Your task to perform on an android device: What's the weather? Image 0: 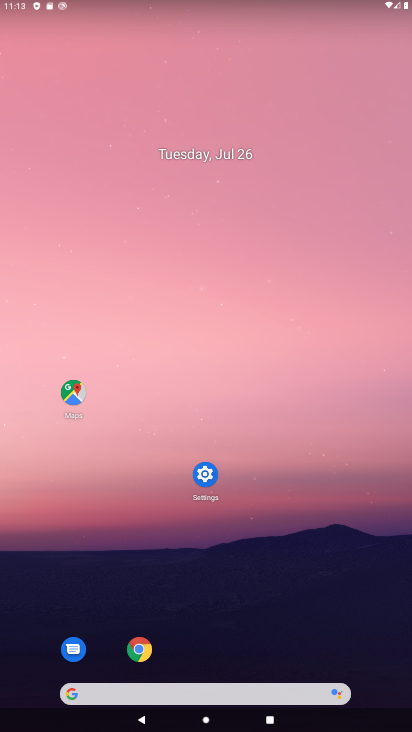
Step 0: drag from (264, 610) to (219, 118)
Your task to perform on an android device: What's the weather? Image 1: 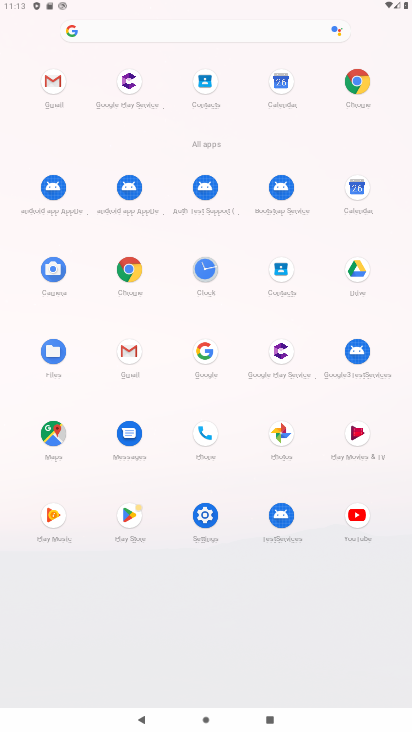
Step 1: click (350, 88)
Your task to perform on an android device: What's the weather? Image 2: 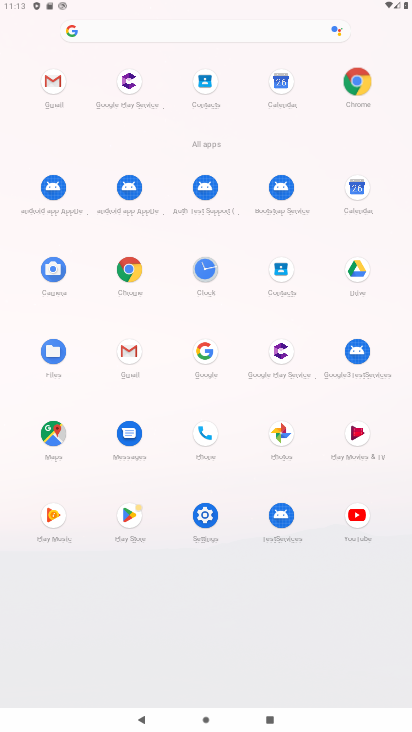
Step 2: click (353, 82)
Your task to perform on an android device: What's the weather? Image 3: 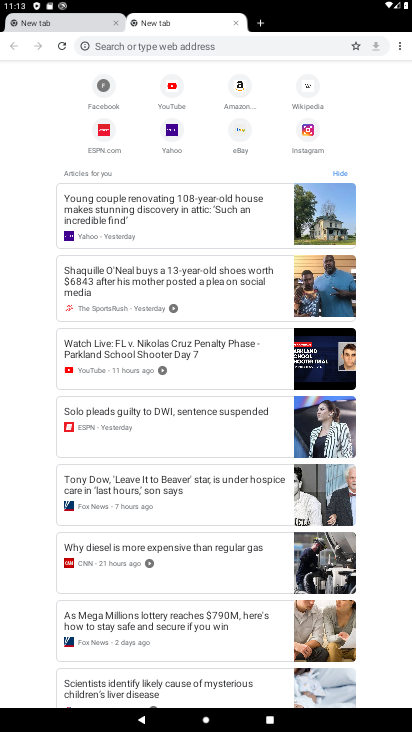
Step 3: click (104, 39)
Your task to perform on an android device: What's the weather? Image 4: 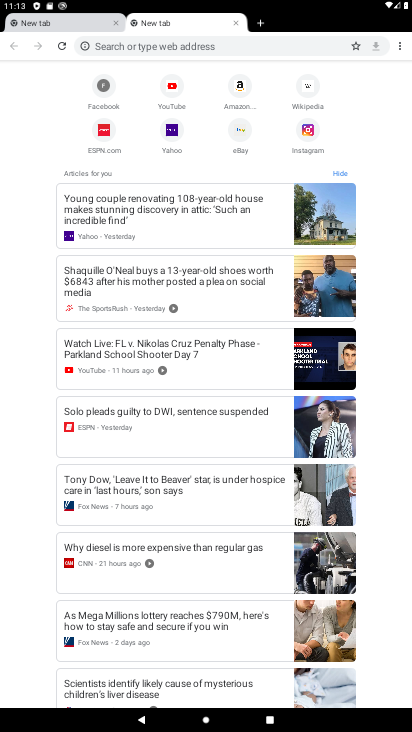
Step 4: click (104, 35)
Your task to perform on an android device: What's the weather? Image 5: 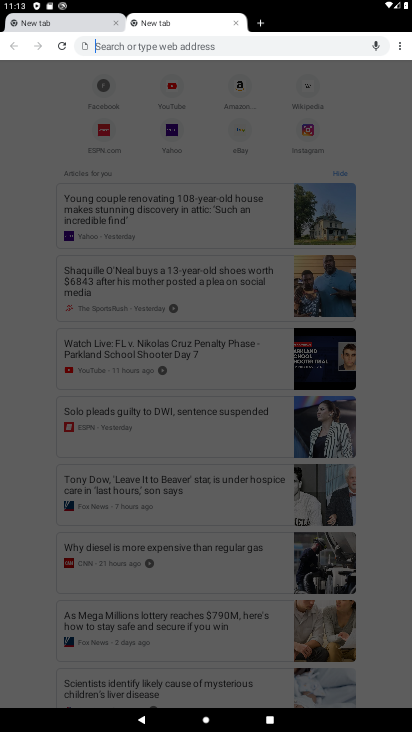
Step 5: click (111, 42)
Your task to perform on an android device: What's the weather? Image 6: 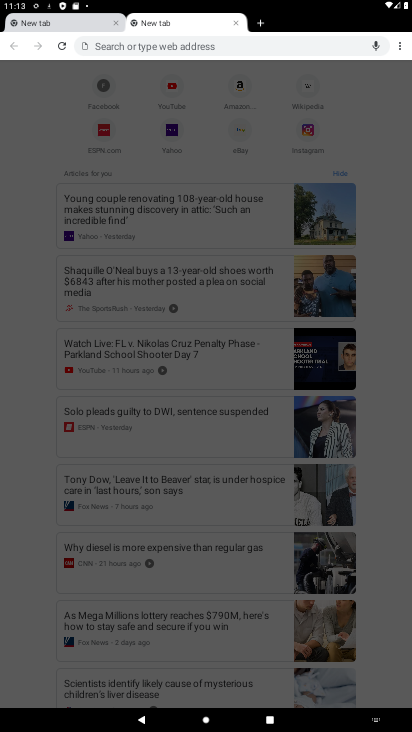
Step 6: type "weather"
Your task to perform on an android device: What's the weather? Image 7: 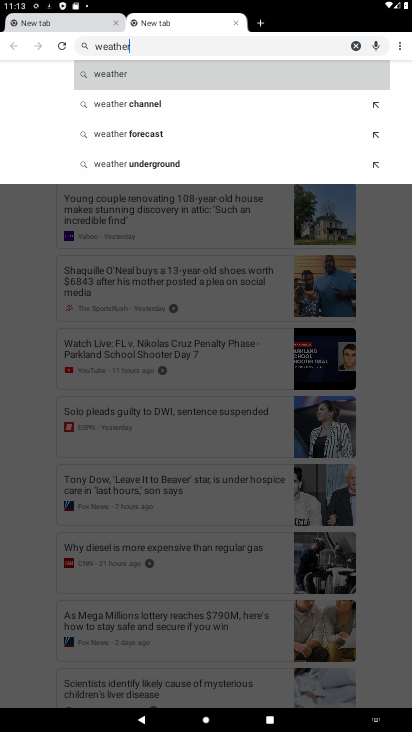
Step 7: click (314, 71)
Your task to perform on an android device: What's the weather? Image 8: 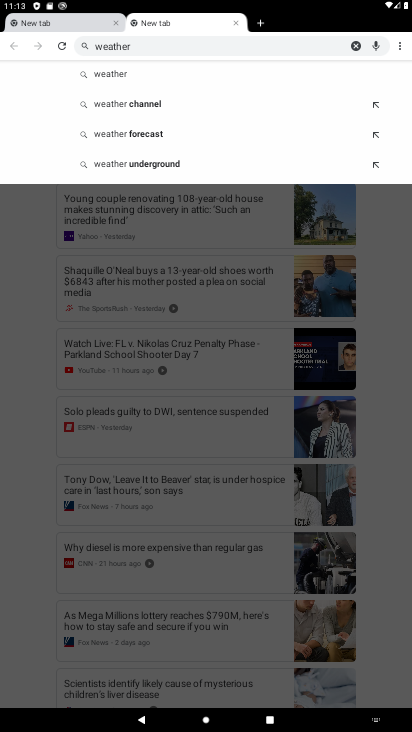
Step 8: click (311, 70)
Your task to perform on an android device: What's the weather? Image 9: 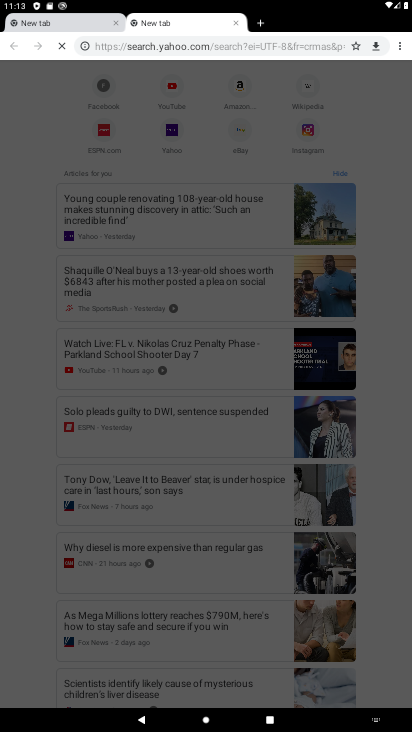
Step 9: click (307, 67)
Your task to perform on an android device: What's the weather? Image 10: 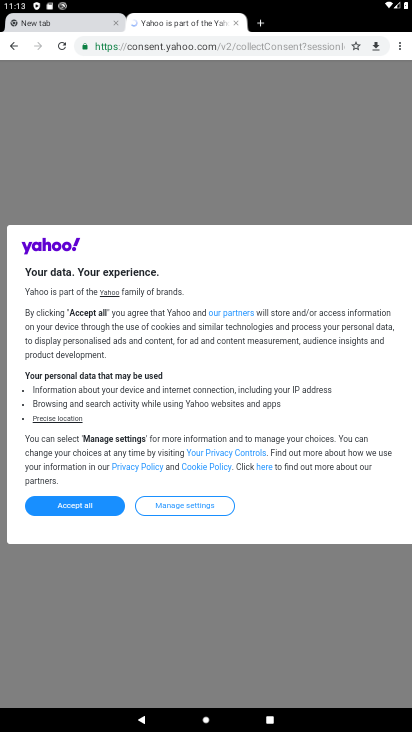
Step 10: task complete